Your task to perform on an android device: open chrome and create a bookmark for the current page Image 0: 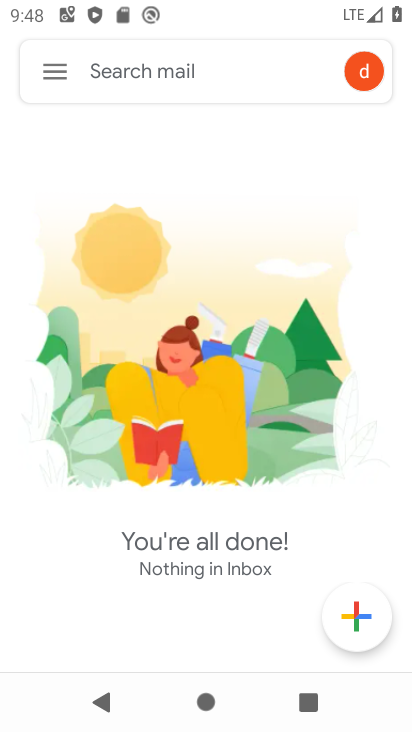
Step 0: press home button
Your task to perform on an android device: open chrome and create a bookmark for the current page Image 1: 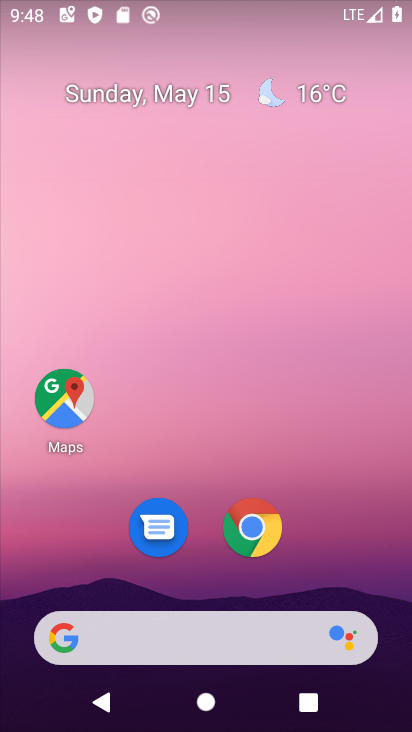
Step 1: click (243, 535)
Your task to perform on an android device: open chrome and create a bookmark for the current page Image 2: 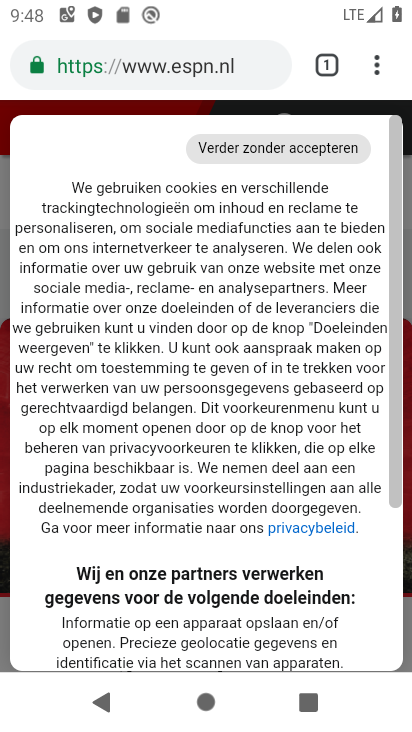
Step 2: click (377, 61)
Your task to perform on an android device: open chrome and create a bookmark for the current page Image 3: 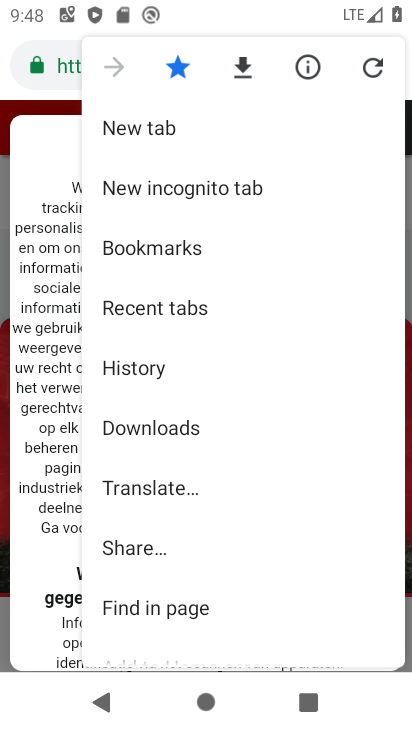
Step 3: task complete